Your task to perform on an android device: Open my contact list Image 0: 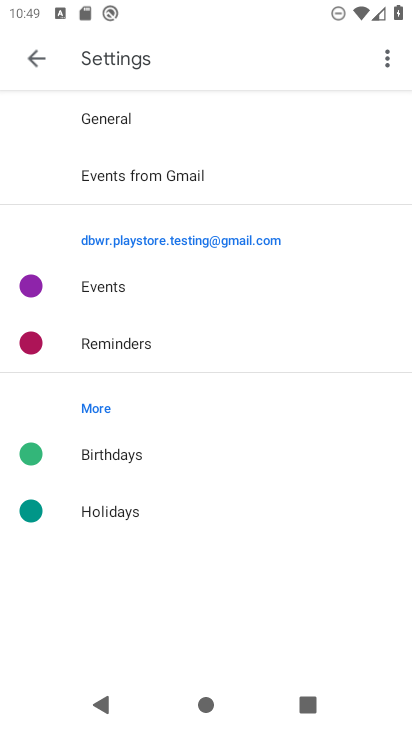
Step 0: press home button
Your task to perform on an android device: Open my contact list Image 1: 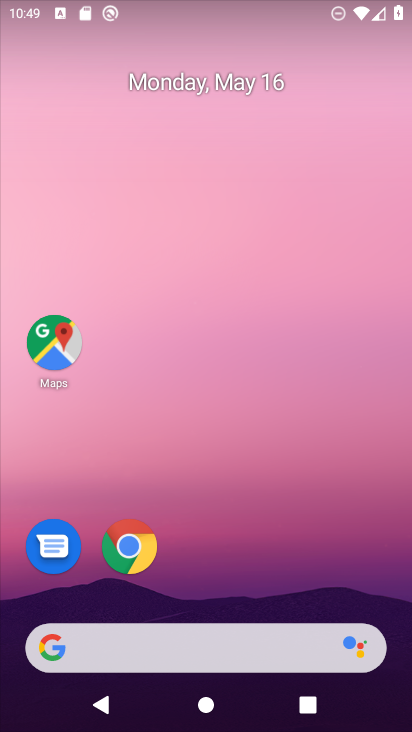
Step 1: drag from (141, 589) to (149, 259)
Your task to perform on an android device: Open my contact list Image 2: 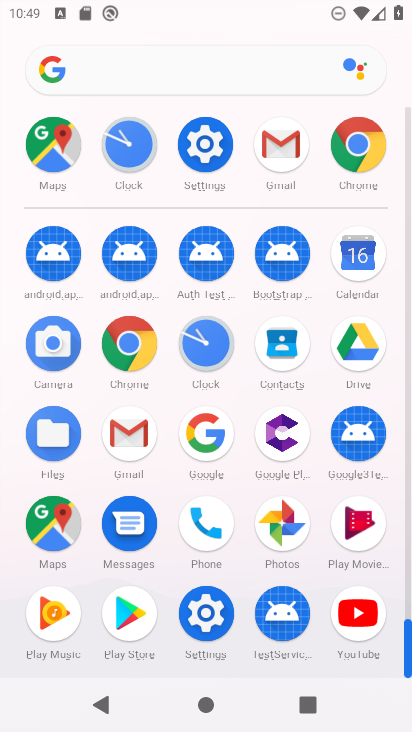
Step 2: click (266, 339)
Your task to perform on an android device: Open my contact list Image 3: 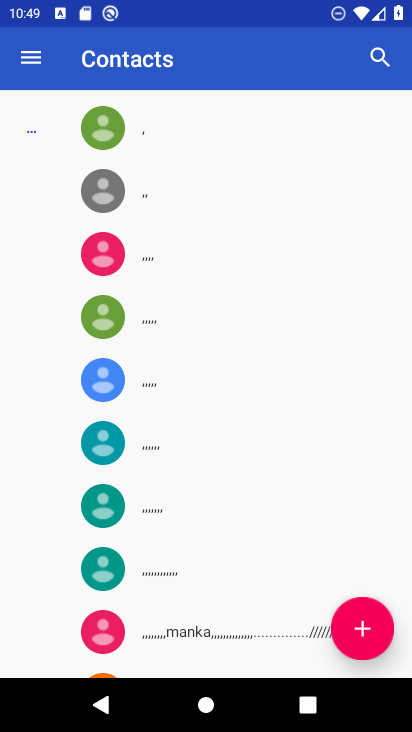
Step 3: task complete